Your task to perform on an android device: turn on showing notifications on the lock screen Image 0: 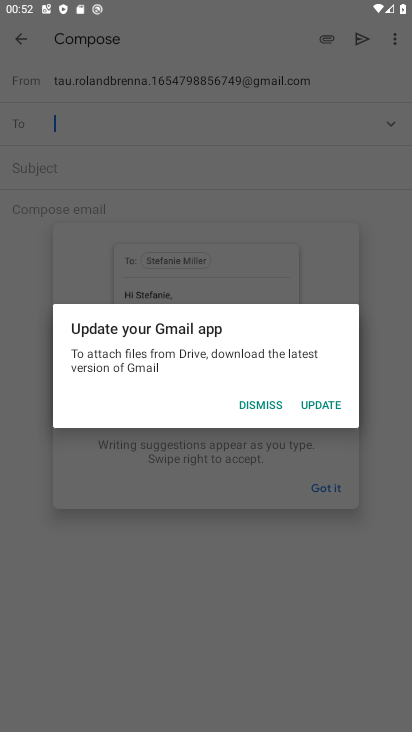
Step 0: click (248, 414)
Your task to perform on an android device: turn on showing notifications on the lock screen Image 1: 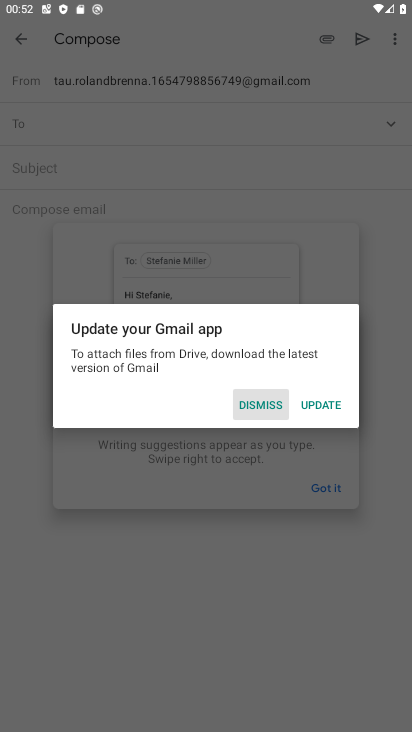
Step 1: click (247, 408)
Your task to perform on an android device: turn on showing notifications on the lock screen Image 2: 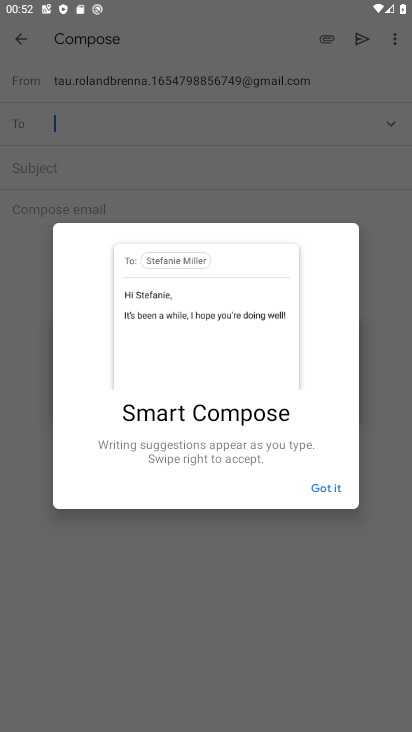
Step 2: click (326, 471)
Your task to perform on an android device: turn on showing notifications on the lock screen Image 3: 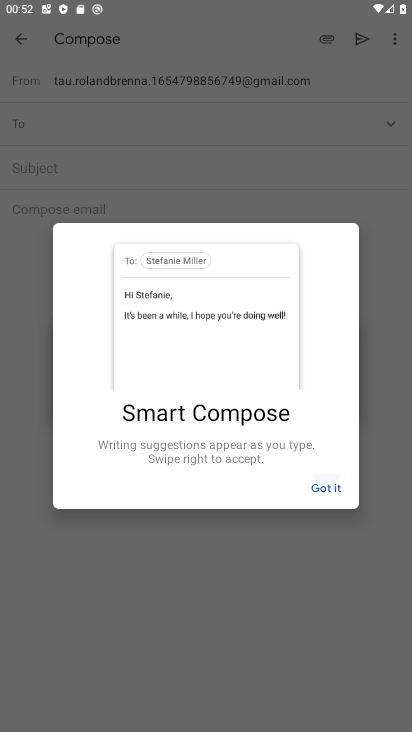
Step 3: click (329, 471)
Your task to perform on an android device: turn on showing notifications on the lock screen Image 4: 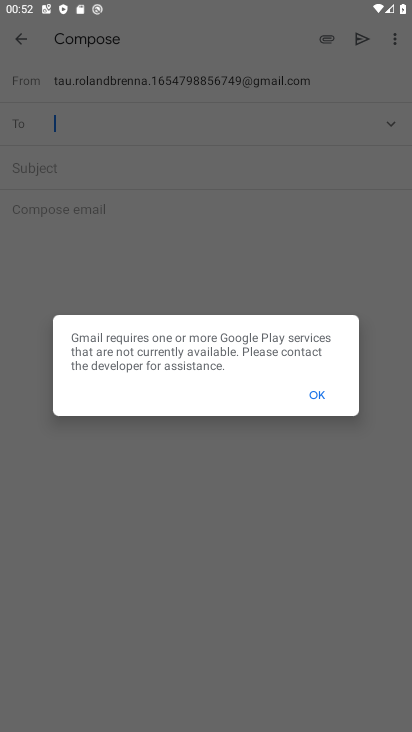
Step 4: click (332, 473)
Your task to perform on an android device: turn on showing notifications on the lock screen Image 5: 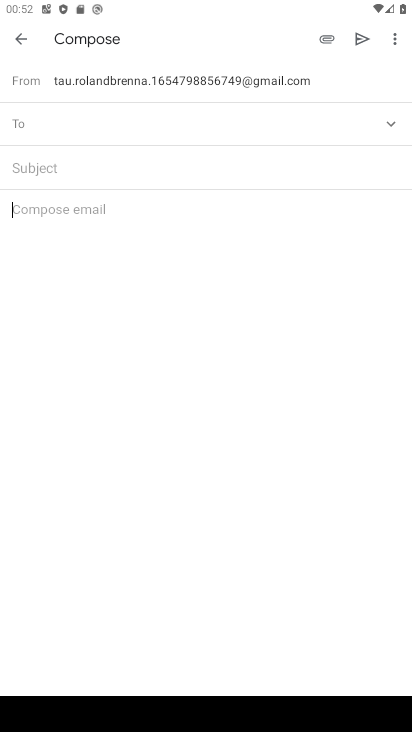
Step 5: drag from (17, 39) to (61, 84)
Your task to perform on an android device: turn on showing notifications on the lock screen Image 6: 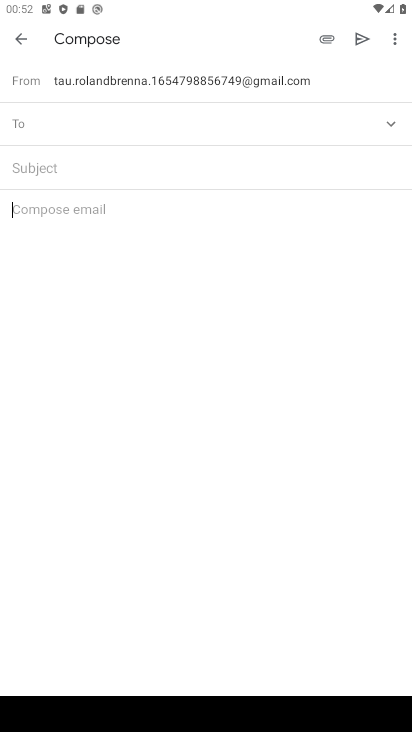
Step 6: press back button
Your task to perform on an android device: turn on showing notifications on the lock screen Image 7: 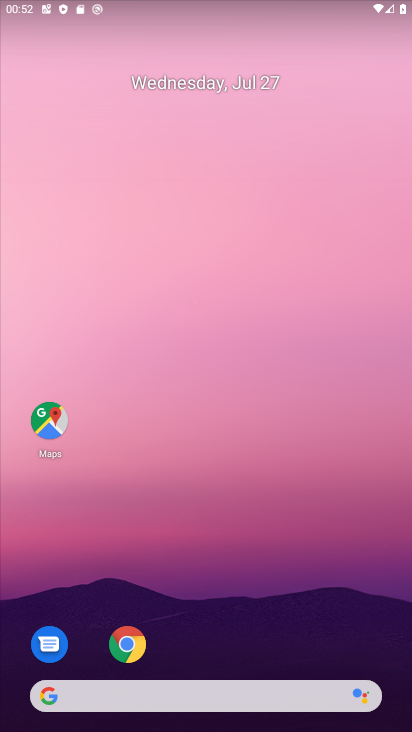
Step 7: drag from (199, 556) to (190, 205)
Your task to perform on an android device: turn on showing notifications on the lock screen Image 8: 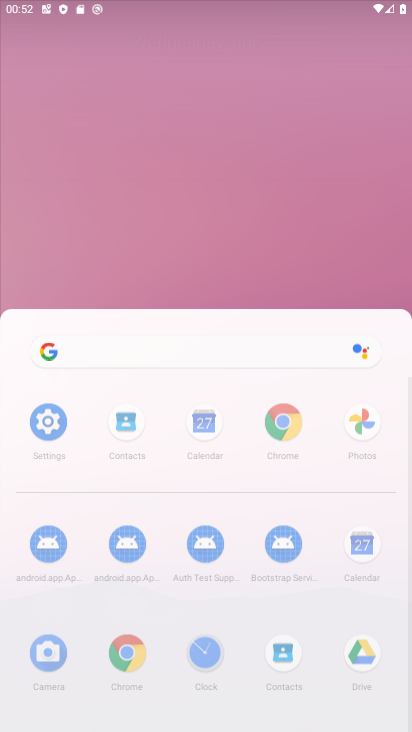
Step 8: drag from (300, 475) to (322, 175)
Your task to perform on an android device: turn on showing notifications on the lock screen Image 9: 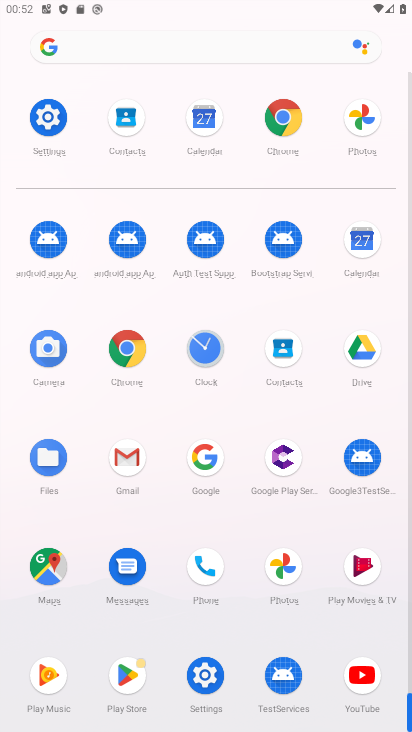
Step 9: click (207, 664)
Your task to perform on an android device: turn on showing notifications on the lock screen Image 10: 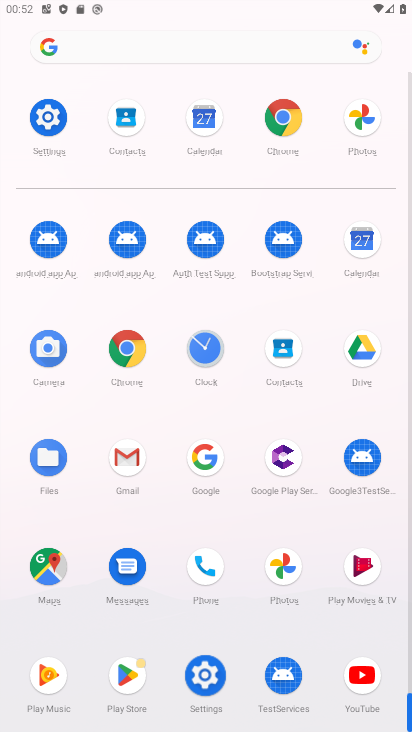
Step 10: click (207, 669)
Your task to perform on an android device: turn on showing notifications on the lock screen Image 11: 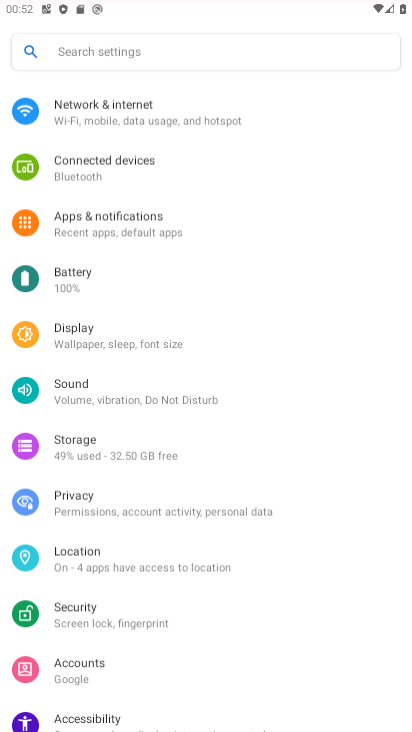
Step 11: click (206, 674)
Your task to perform on an android device: turn on showing notifications on the lock screen Image 12: 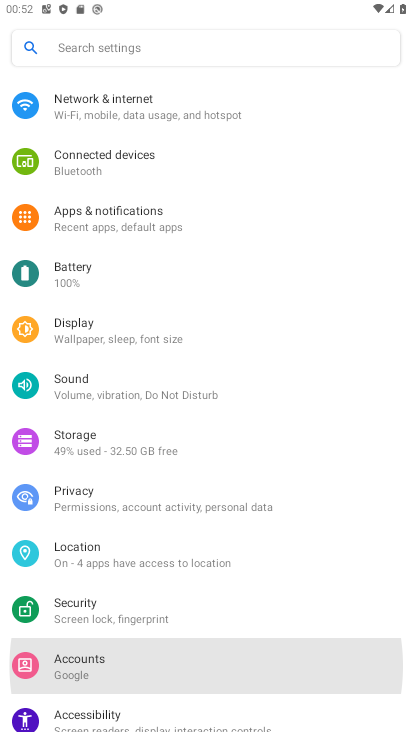
Step 12: click (208, 675)
Your task to perform on an android device: turn on showing notifications on the lock screen Image 13: 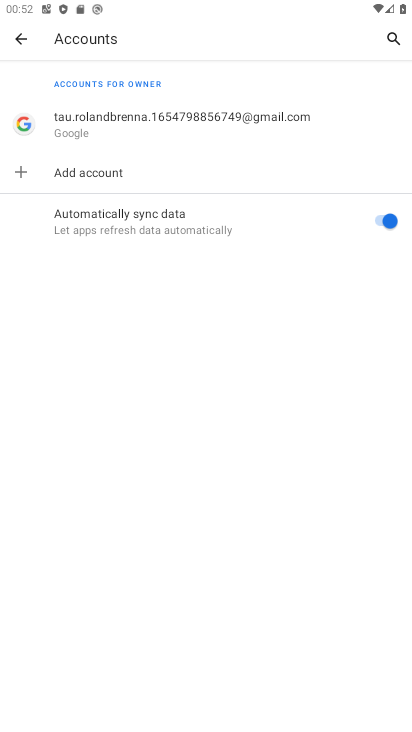
Step 13: click (7, 31)
Your task to perform on an android device: turn on showing notifications on the lock screen Image 14: 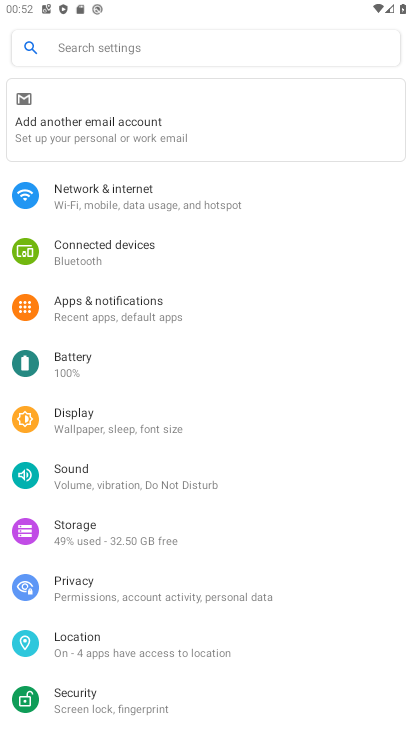
Step 14: click (79, 639)
Your task to perform on an android device: turn on showing notifications on the lock screen Image 15: 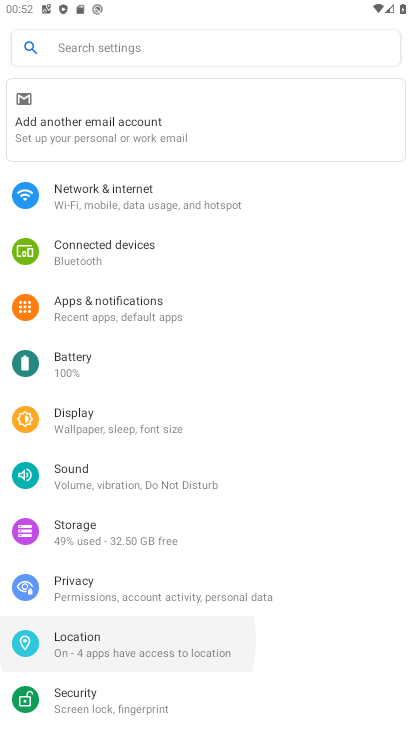
Step 15: click (80, 640)
Your task to perform on an android device: turn on showing notifications on the lock screen Image 16: 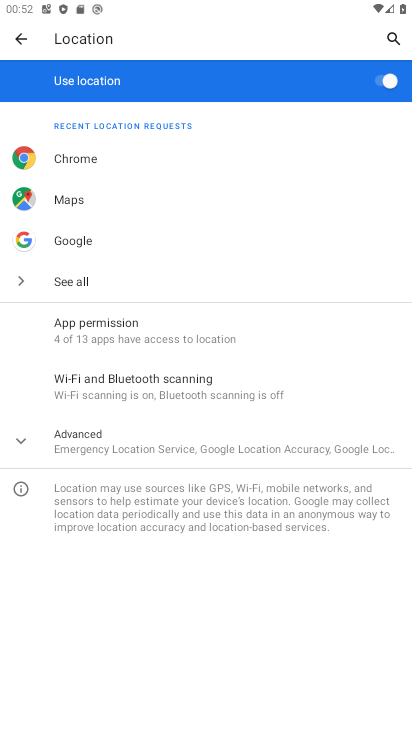
Step 16: click (15, 39)
Your task to perform on an android device: turn on showing notifications on the lock screen Image 17: 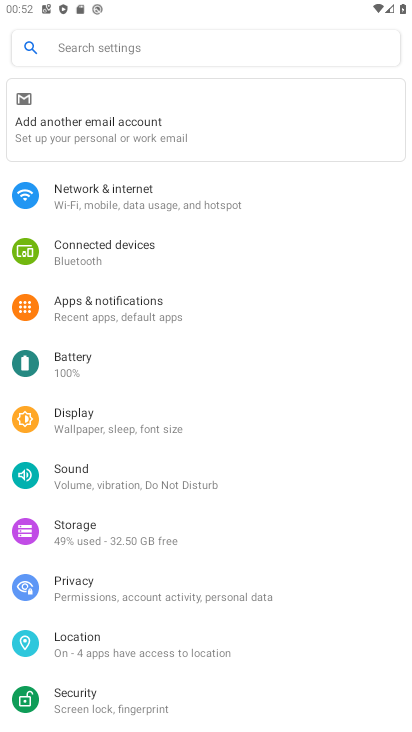
Step 17: click (112, 214)
Your task to perform on an android device: turn on showing notifications on the lock screen Image 18: 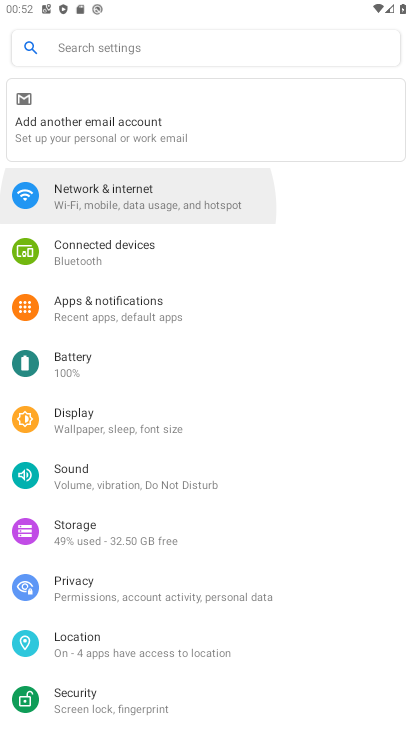
Step 18: click (111, 216)
Your task to perform on an android device: turn on showing notifications on the lock screen Image 19: 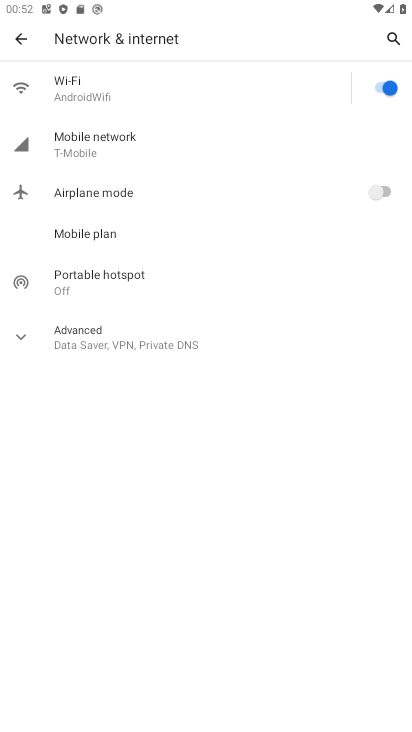
Step 19: click (13, 31)
Your task to perform on an android device: turn on showing notifications on the lock screen Image 20: 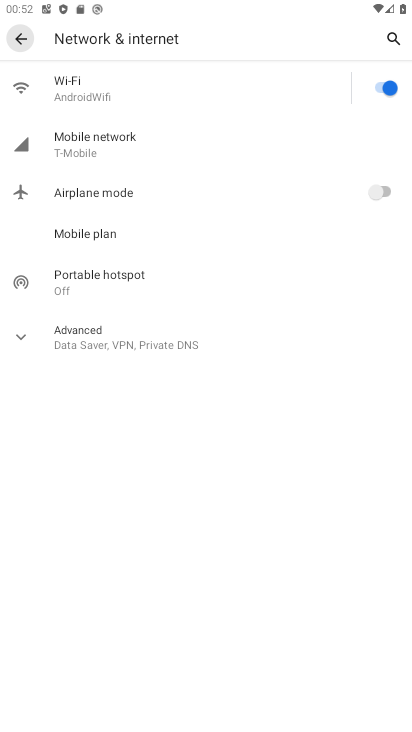
Step 20: click (16, 35)
Your task to perform on an android device: turn on showing notifications on the lock screen Image 21: 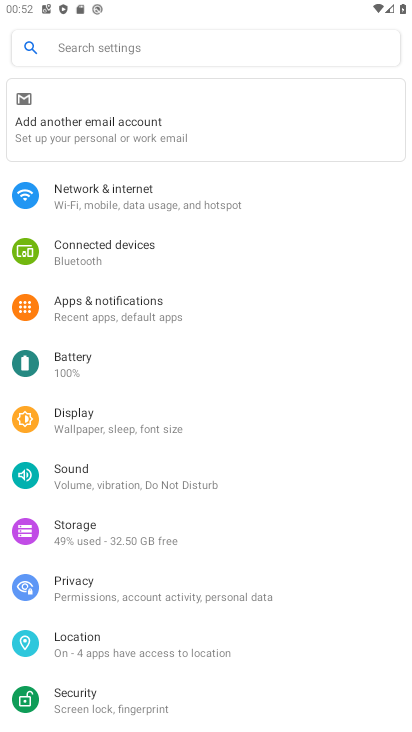
Step 21: click (96, 299)
Your task to perform on an android device: turn on showing notifications on the lock screen Image 22: 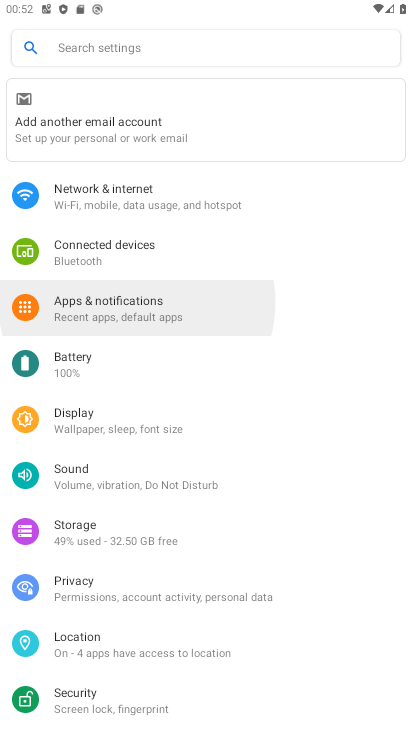
Step 22: click (94, 297)
Your task to perform on an android device: turn on showing notifications on the lock screen Image 23: 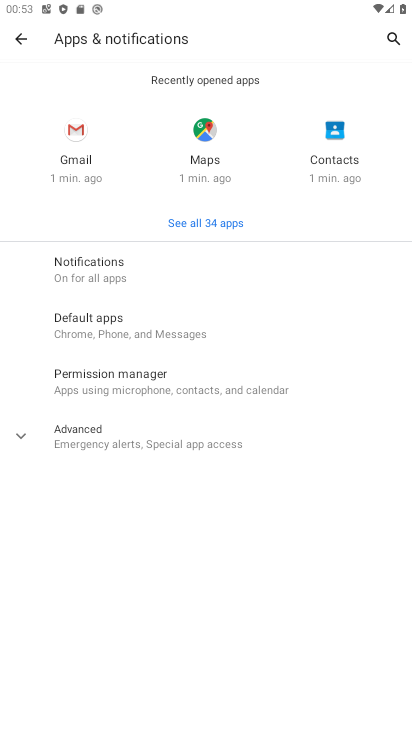
Step 23: click (87, 263)
Your task to perform on an android device: turn on showing notifications on the lock screen Image 24: 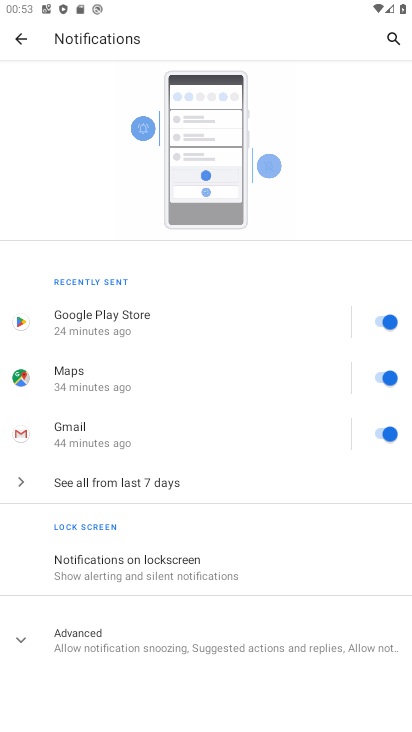
Step 24: click (120, 556)
Your task to perform on an android device: turn on showing notifications on the lock screen Image 25: 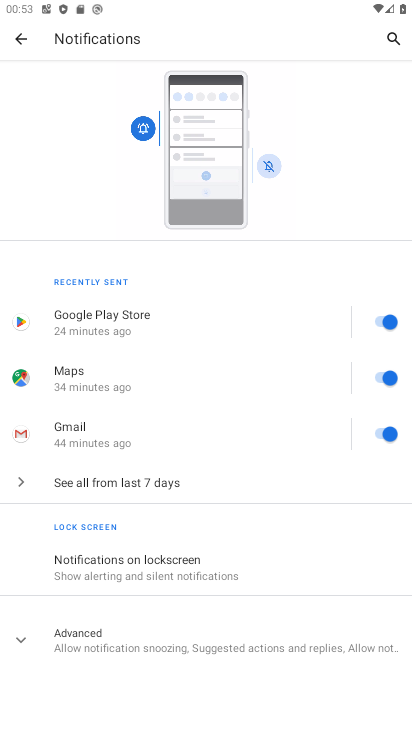
Step 25: click (120, 556)
Your task to perform on an android device: turn on showing notifications on the lock screen Image 26: 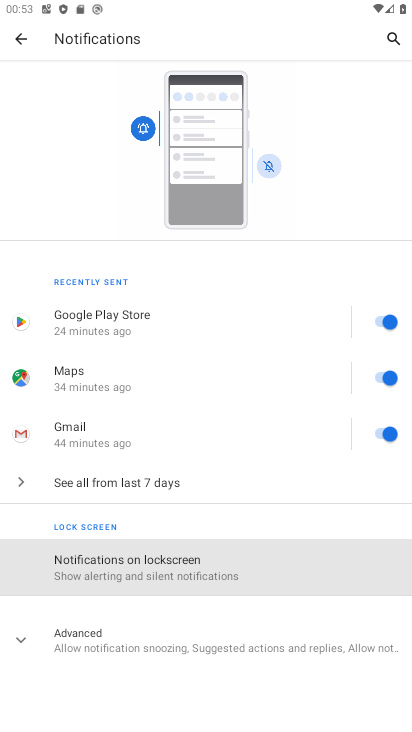
Step 26: click (129, 564)
Your task to perform on an android device: turn on showing notifications on the lock screen Image 27: 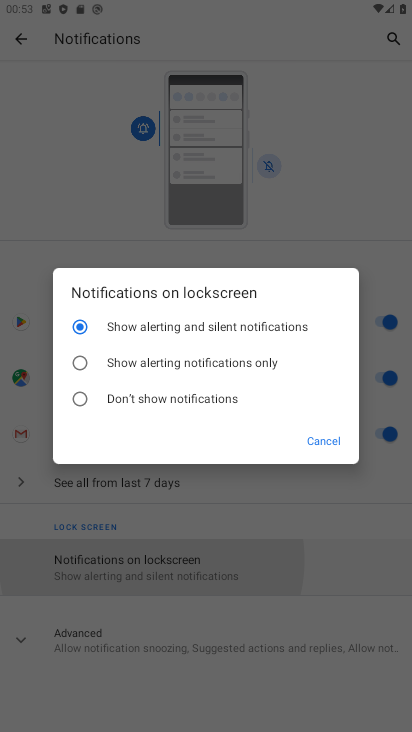
Step 27: click (141, 566)
Your task to perform on an android device: turn on showing notifications on the lock screen Image 28: 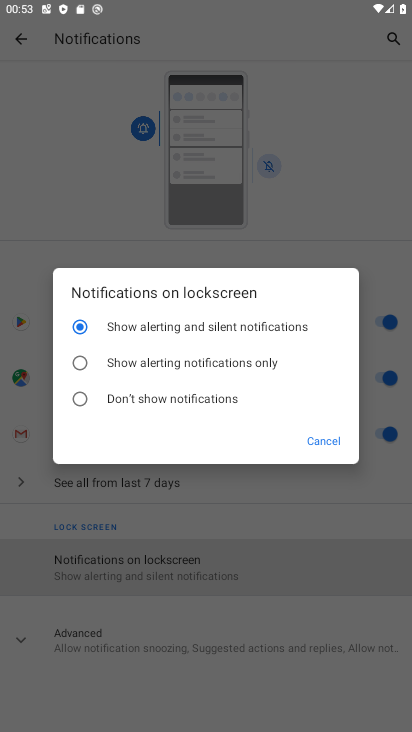
Step 28: click (147, 563)
Your task to perform on an android device: turn on showing notifications on the lock screen Image 29: 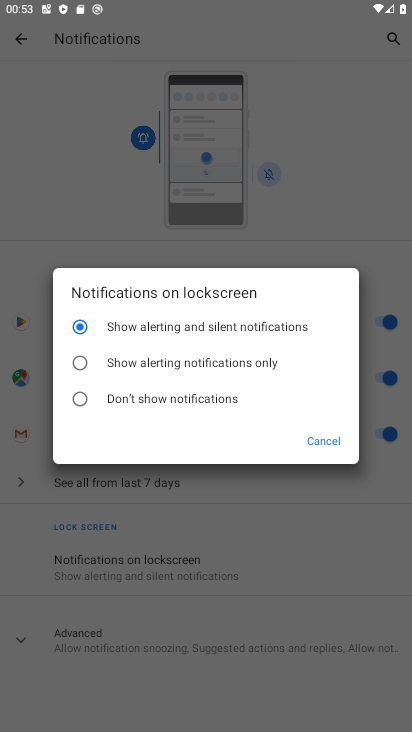
Step 29: task complete